Your task to perform on an android device: install app "Adobe Express: Graphic Design" Image 0: 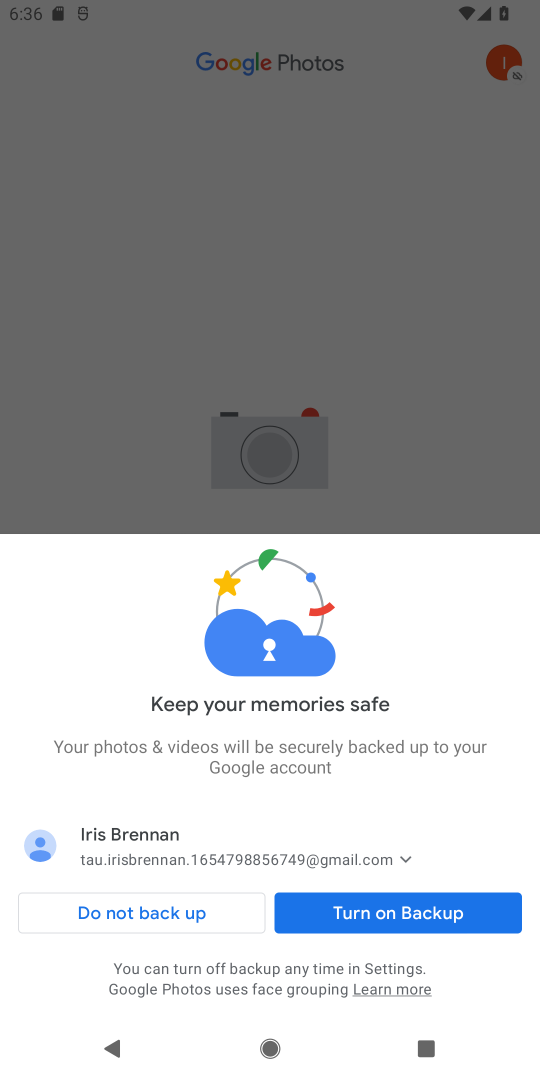
Step 0: press home button
Your task to perform on an android device: install app "Adobe Express: Graphic Design" Image 1: 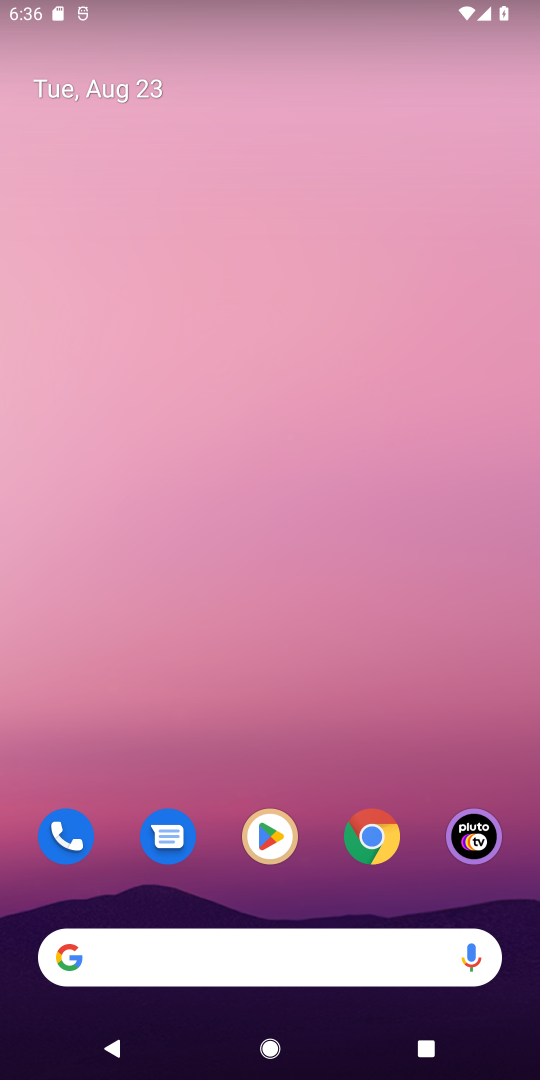
Step 1: click (257, 835)
Your task to perform on an android device: install app "Adobe Express: Graphic Design" Image 2: 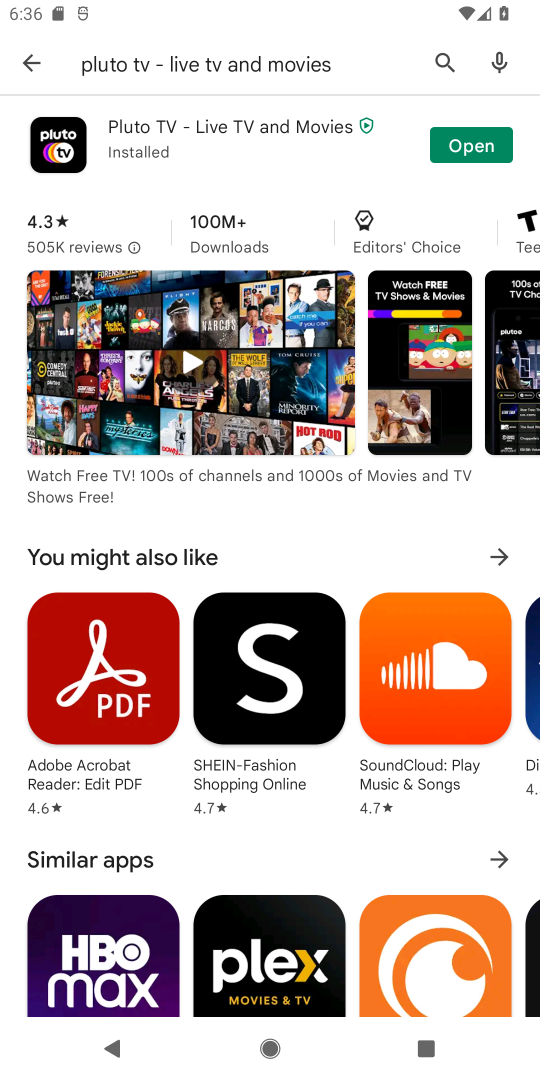
Step 2: click (437, 65)
Your task to perform on an android device: install app "Adobe Express: Graphic Design" Image 3: 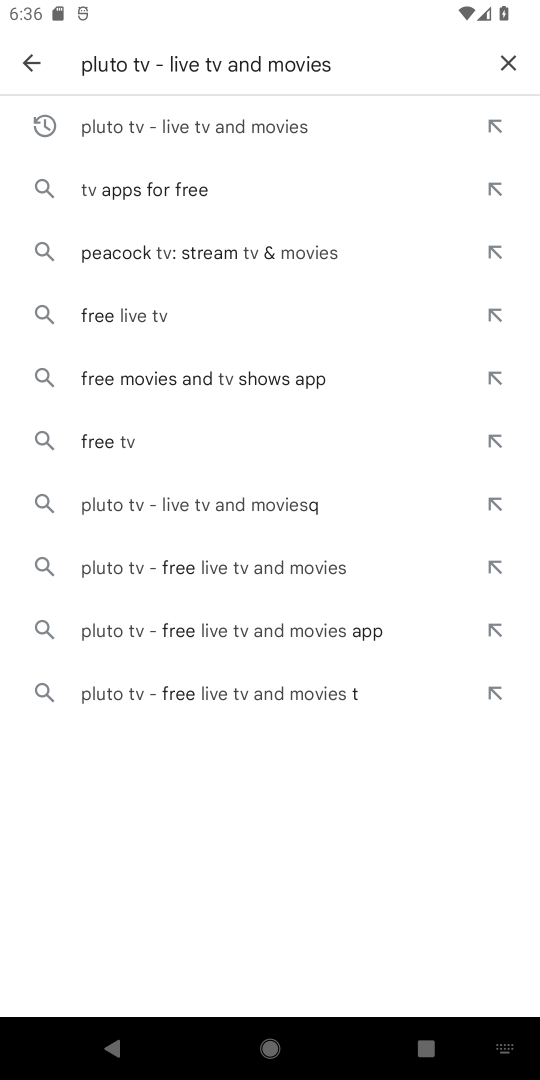
Step 3: click (491, 51)
Your task to perform on an android device: install app "Adobe Express: Graphic Design" Image 4: 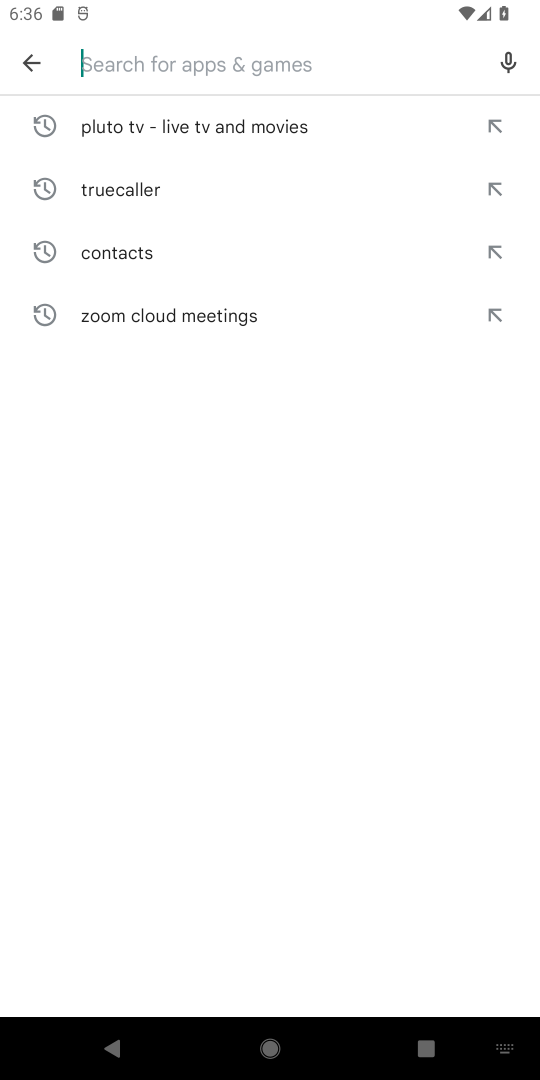
Step 4: type "Adobe Express: Graphic Design"
Your task to perform on an android device: install app "Adobe Express: Graphic Design" Image 5: 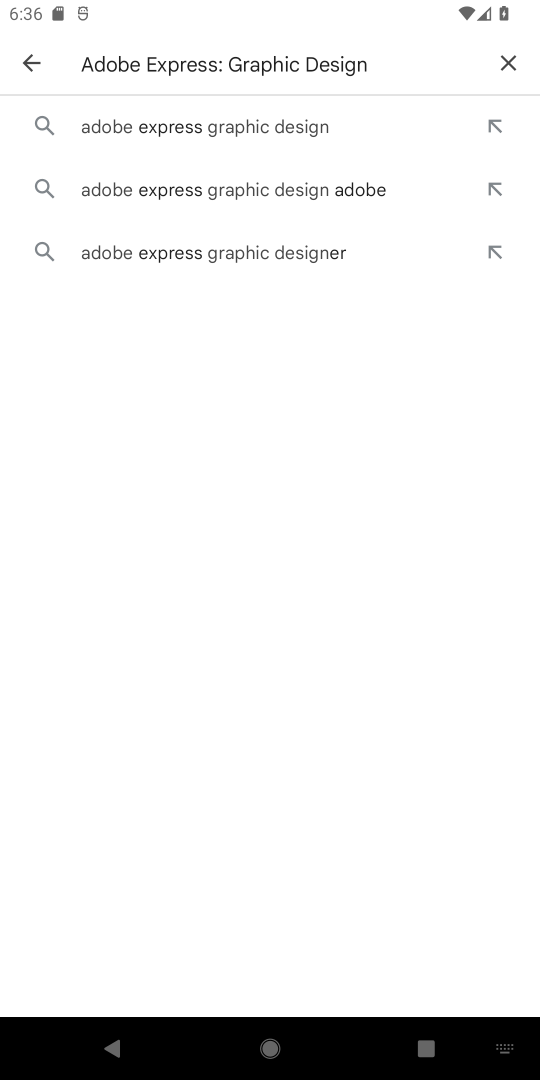
Step 5: click (316, 131)
Your task to perform on an android device: install app "Adobe Express: Graphic Design" Image 6: 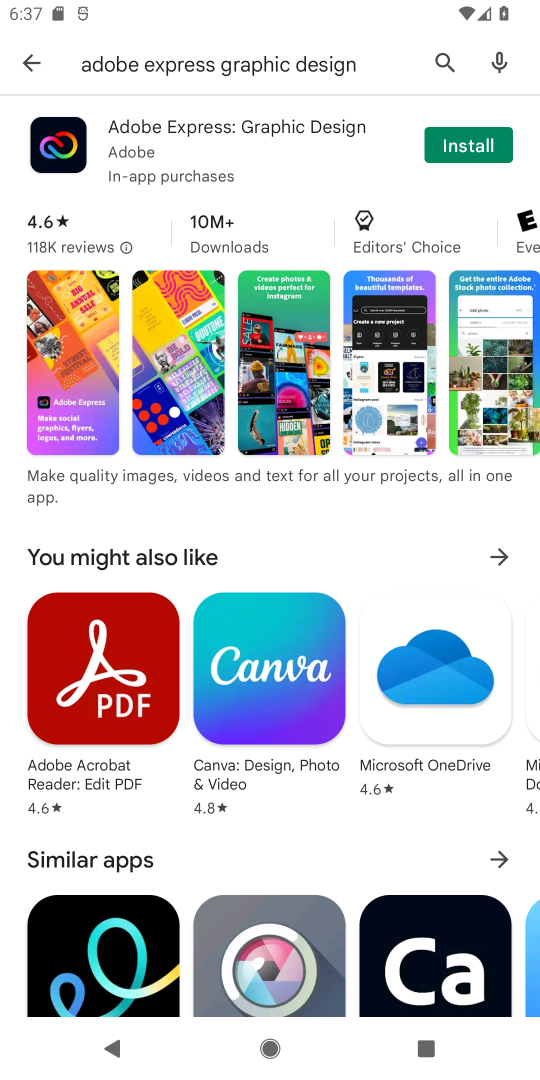
Step 6: click (476, 148)
Your task to perform on an android device: install app "Adobe Express: Graphic Design" Image 7: 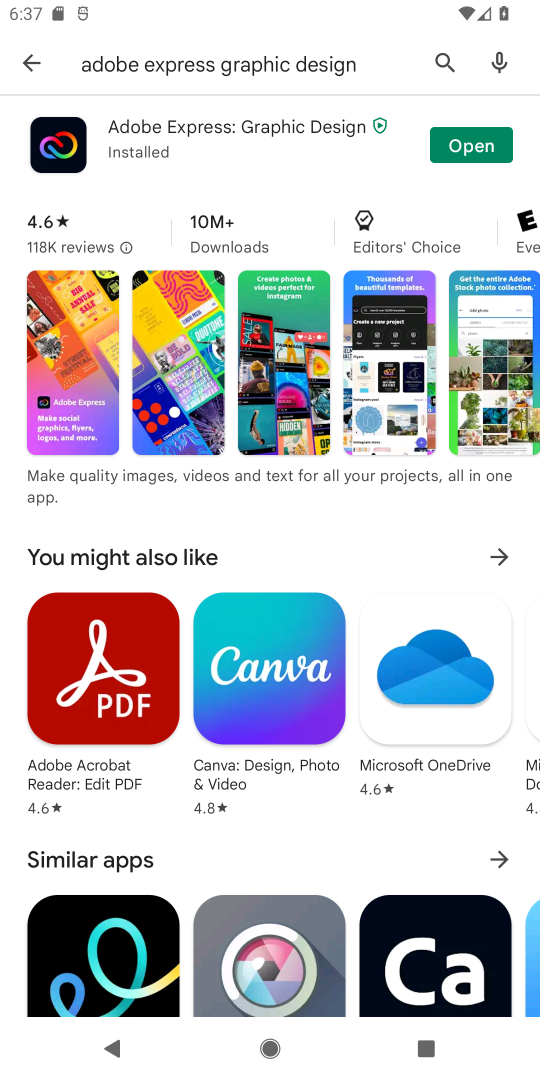
Step 7: task complete